Your task to perform on an android device: open a bookmark in the chrome app Image 0: 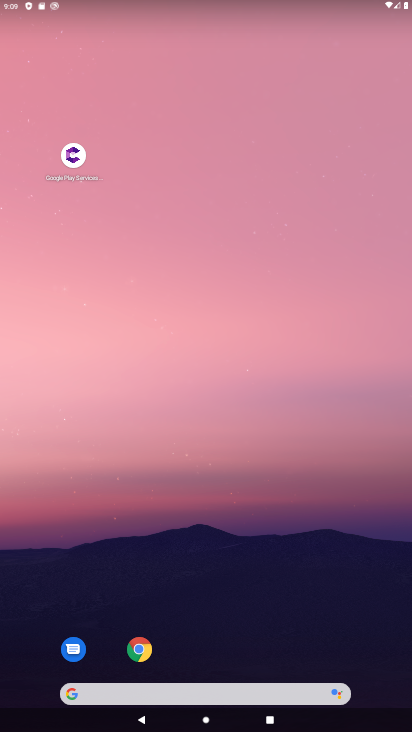
Step 0: drag from (187, 452) to (267, 32)
Your task to perform on an android device: open a bookmark in the chrome app Image 1: 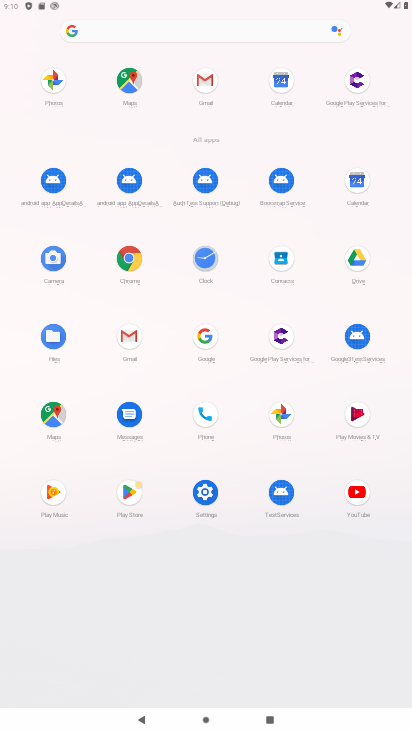
Step 1: click (125, 264)
Your task to perform on an android device: open a bookmark in the chrome app Image 2: 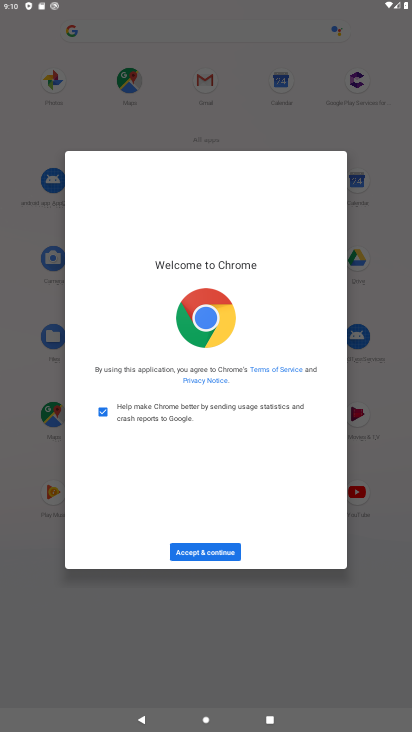
Step 2: click (195, 559)
Your task to perform on an android device: open a bookmark in the chrome app Image 3: 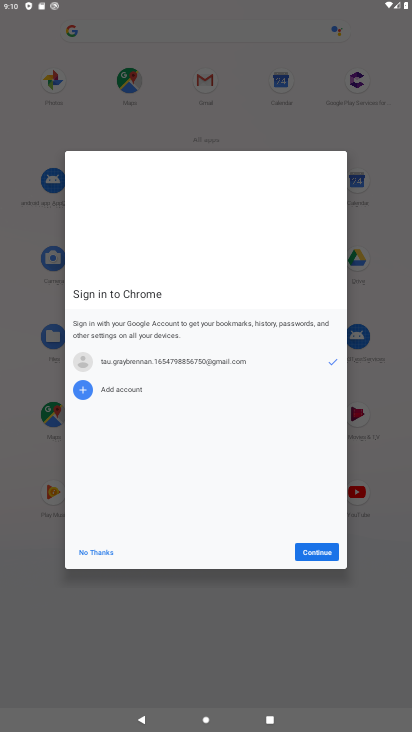
Step 3: click (320, 548)
Your task to perform on an android device: open a bookmark in the chrome app Image 4: 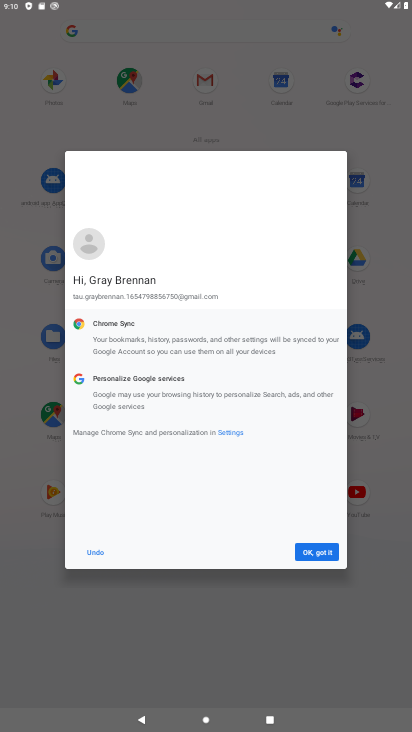
Step 4: click (320, 548)
Your task to perform on an android device: open a bookmark in the chrome app Image 5: 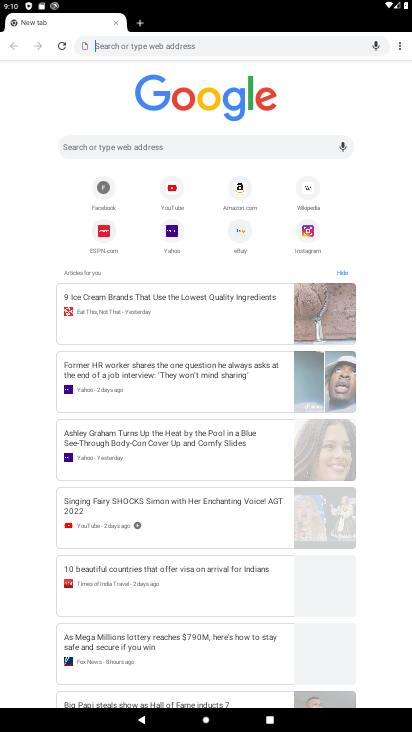
Step 5: click (400, 49)
Your task to perform on an android device: open a bookmark in the chrome app Image 6: 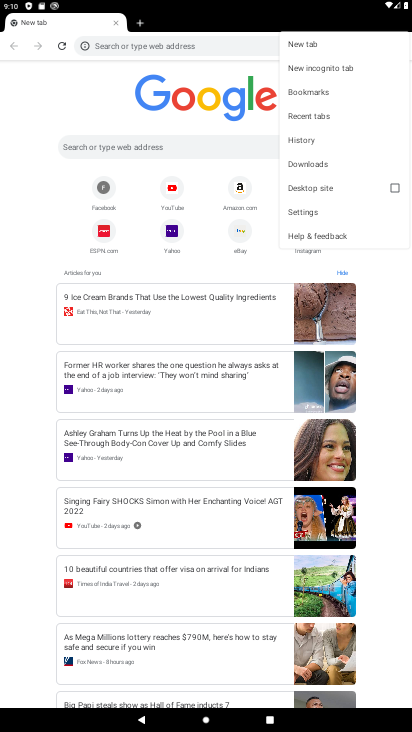
Step 6: click (326, 98)
Your task to perform on an android device: open a bookmark in the chrome app Image 7: 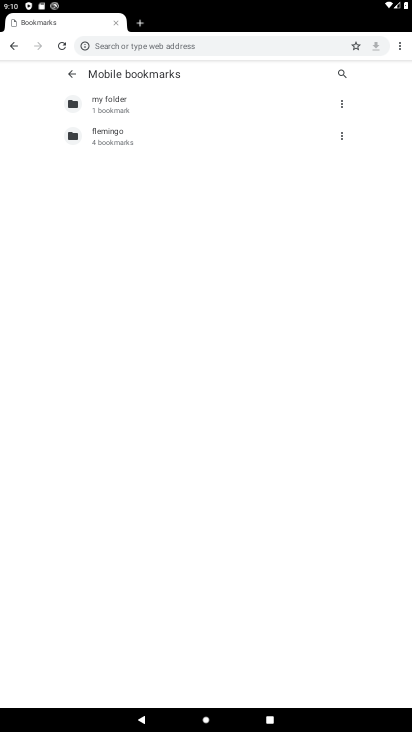
Step 7: click (155, 112)
Your task to perform on an android device: open a bookmark in the chrome app Image 8: 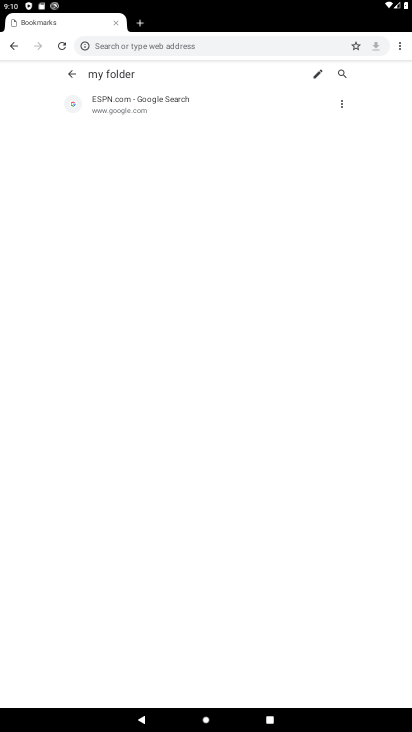
Step 8: task complete